Your task to perform on an android device: turn off improve location accuracy Image 0: 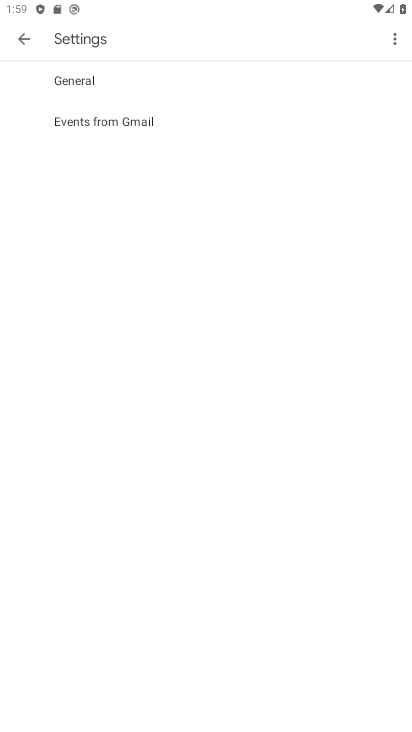
Step 0: press home button
Your task to perform on an android device: turn off improve location accuracy Image 1: 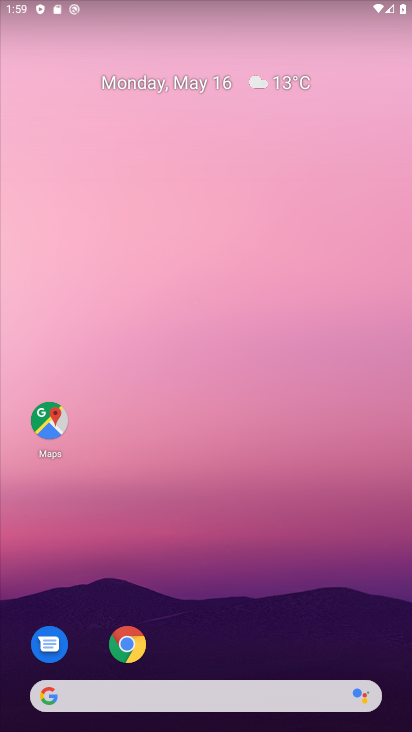
Step 1: drag from (223, 675) to (308, 154)
Your task to perform on an android device: turn off improve location accuracy Image 2: 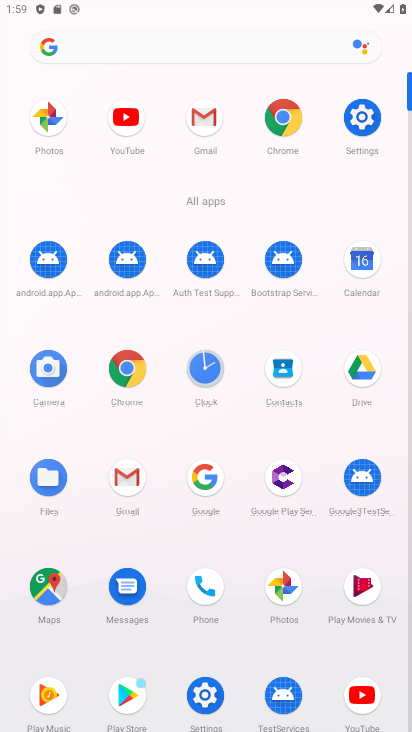
Step 2: click (363, 124)
Your task to perform on an android device: turn off improve location accuracy Image 3: 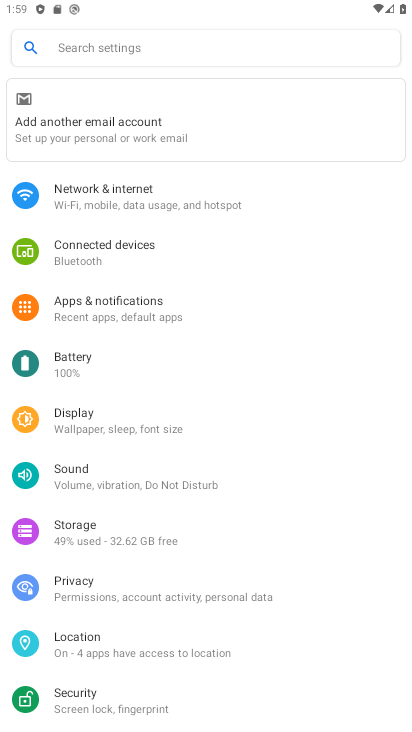
Step 3: click (87, 644)
Your task to perform on an android device: turn off improve location accuracy Image 4: 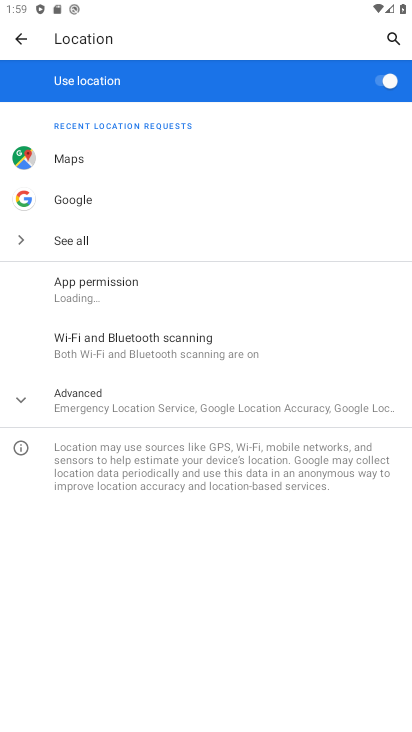
Step 4: click (109, 397)
Your task to perform on an android device: turn off improve location accuracy Image 5: 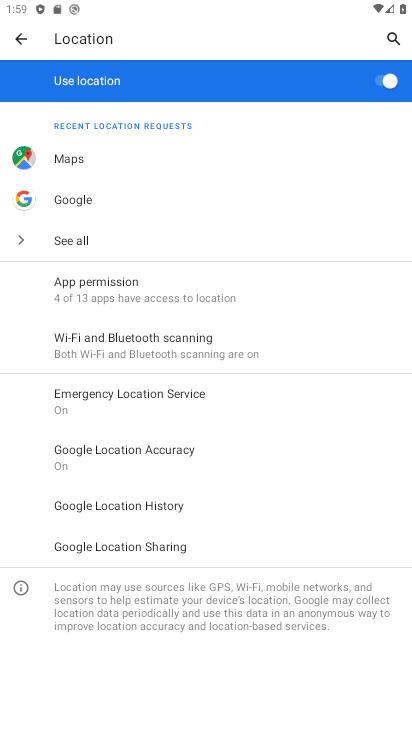
Step 5: click (157, 455)
Your task to perform on an android device: turn off improve location accuracy Image 6: 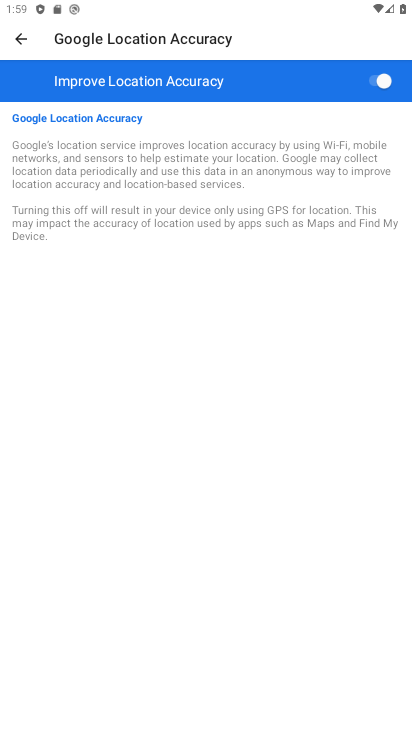
Step 6: task complete